Your task to perform on an android device: change the upload size in google photos Image 0: 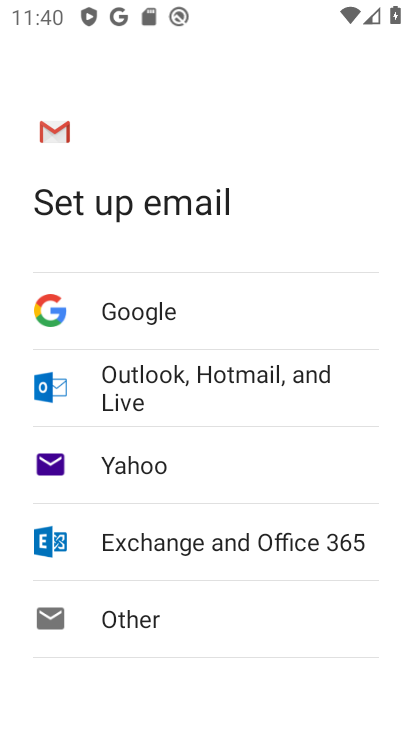
Step 0: press home button
Your task to perform on an android device: change the upload size in google photos Image 1: 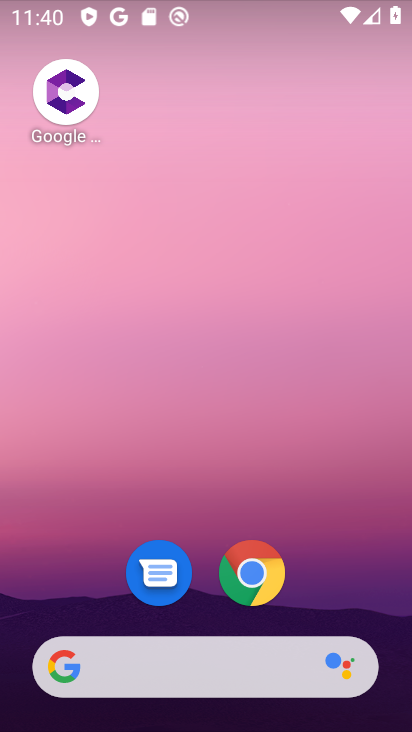
Step 1: drag from (384, 637) to (271, 96)
Your task to perform on an android device: change the upload size in google photos Image 2: 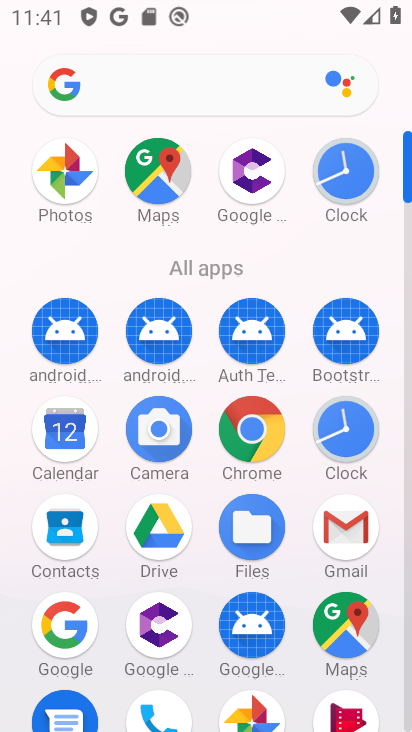
Step 2: click (267, 699)
Your task to perform on an android device: change the upload size in google photos Image 3: 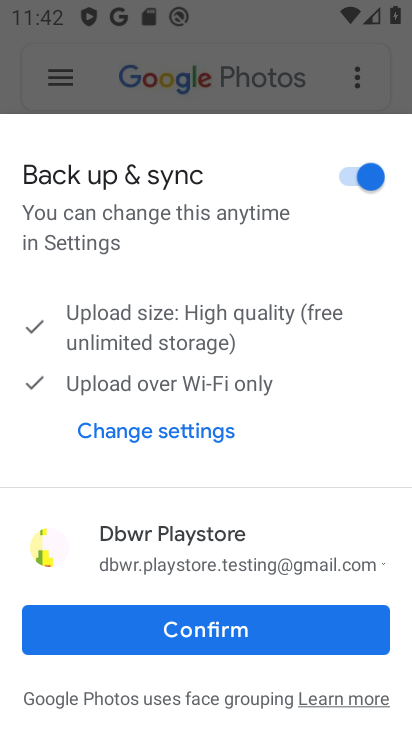
Step 3: click (233, 615)
Your task to perform on an android device: change the upload size in google photos Image 4: 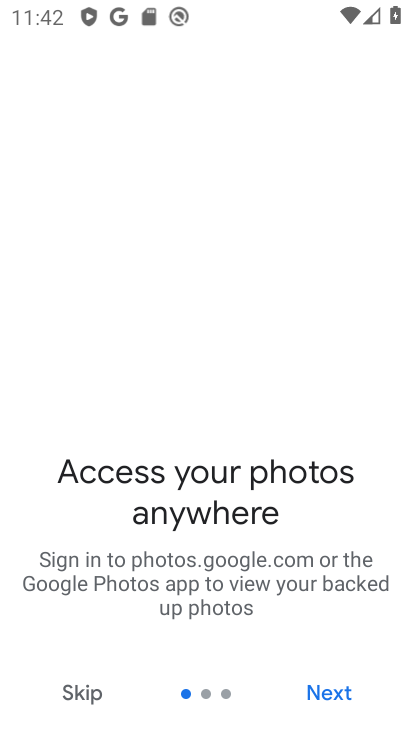
Step 4: click (313, 692)
Your task to perform on an android device: change the upload size in google photos Image 5: 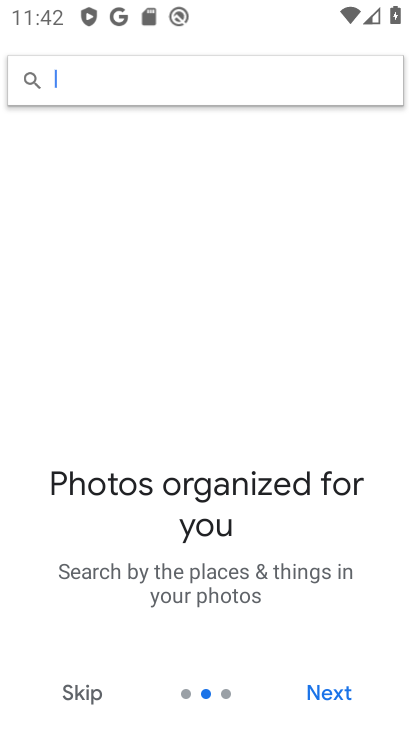
Step 5: click (313, 692)
Your task to perform on an android device: change the upload size in google photos Image 6: 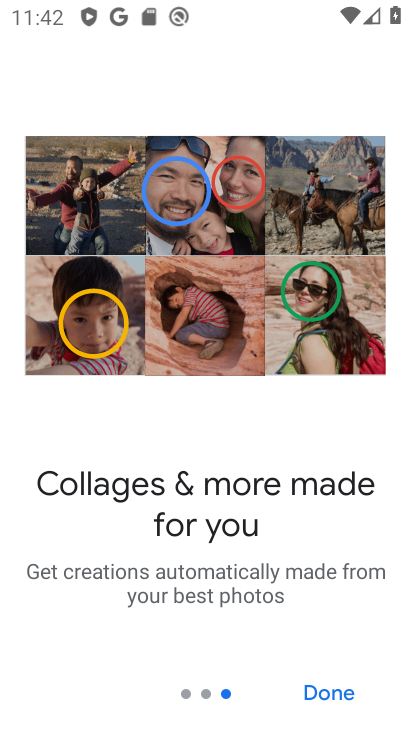
Step 6: click (313, 692)
Your task to perform on an android device: change the upload size in google photos Image 7: 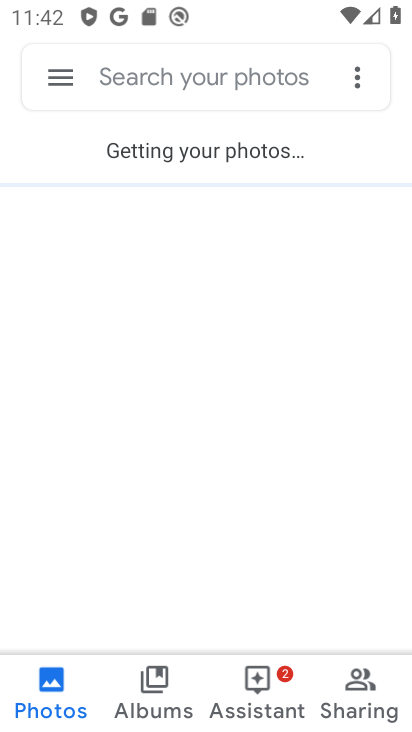
Step 7: click (46, 91)
Your task to perform on an android device: change the upload size in google photos Image 8: 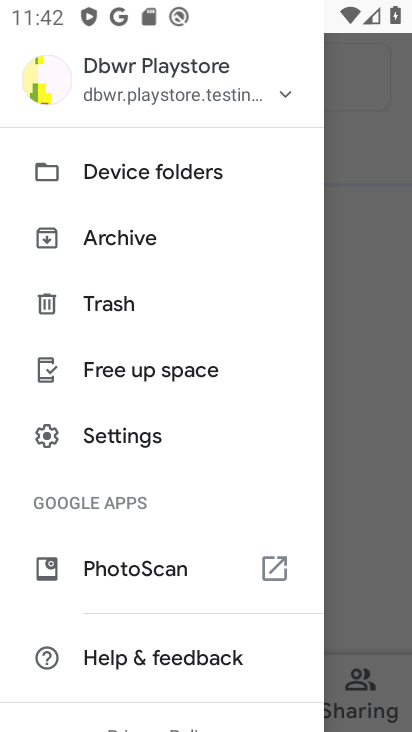
Step 8: click (171, 447)
Your task to perform on an android device: change the upload size in google photos Image 9: 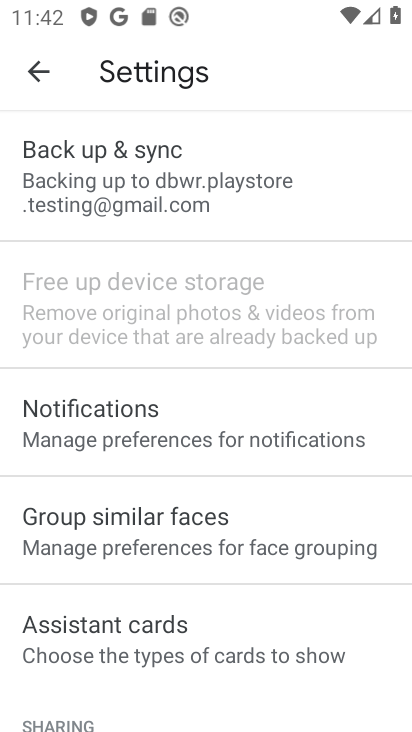
Step 9: click (209, 450)
Your task to perform on an android device: change the upload size in google photos Image 10: 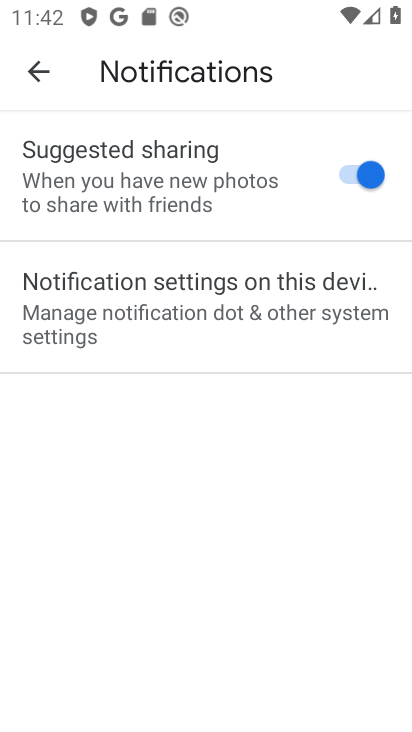
Step 10: press back button
Your task to perform on an android device: change the upload size in google photos Image 11: 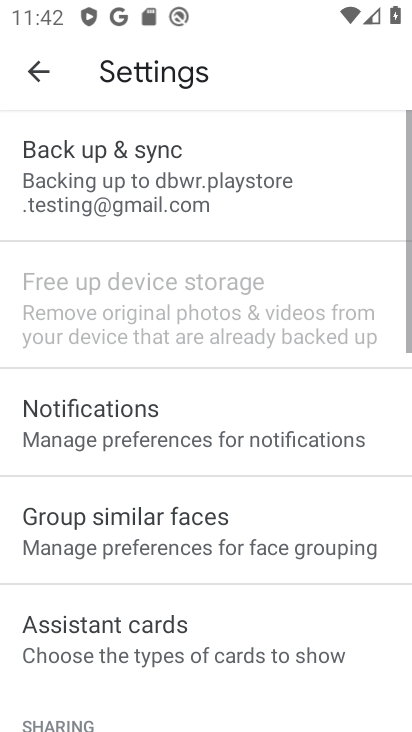
Step 11: click (183, 145)
Your task to perform on an android device: change the upload size in google photos Image 12: 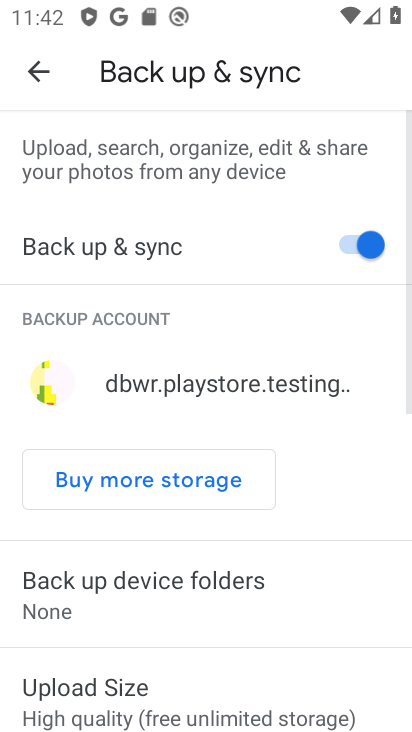
Step 12: click (171, 711)
Your task to perform on an android device: change the upload size in google photos Image 13: 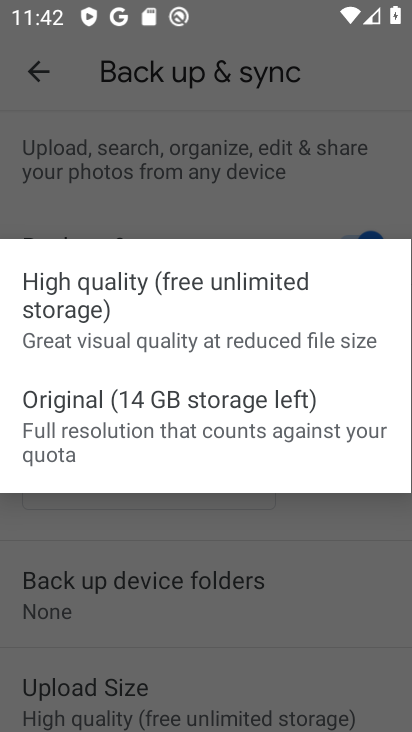
Step 13: click (166, 425)
Your task to perform on an android device: change the upload size in google photos Image 14: 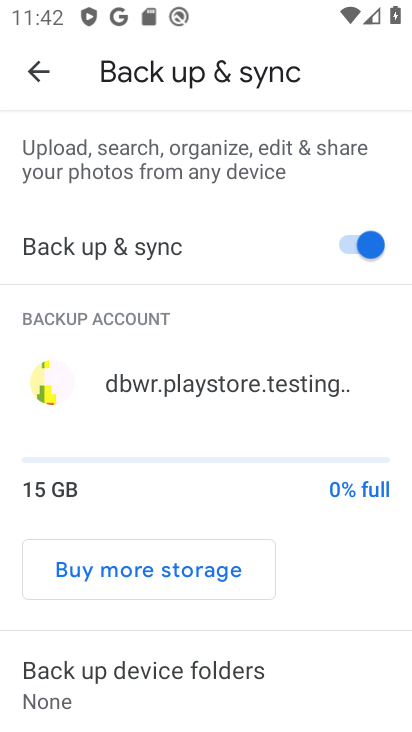
Step 14: task complete